Your task to perform on an android device: Open the calendar and show me this week's events? Image 0: 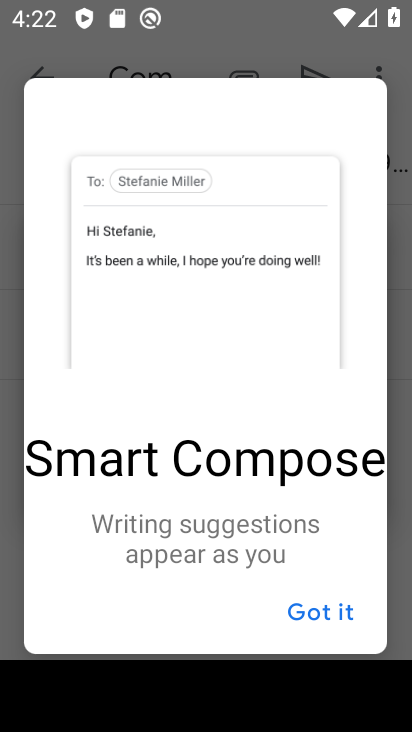
Step 0: press home button
Your task to perform on an android device: Open the calendar and show me this week's events? Image 1: 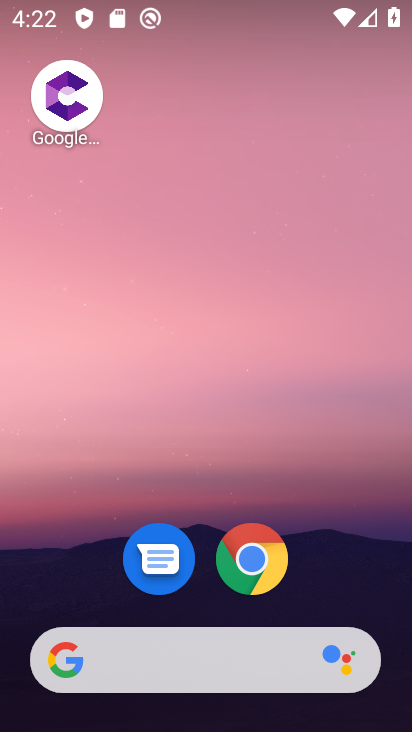
Step 1: drag from (370, 581) to (274, 101)
Your task to perform on an android device: Open the calendar and show me this week's events? Image 2: 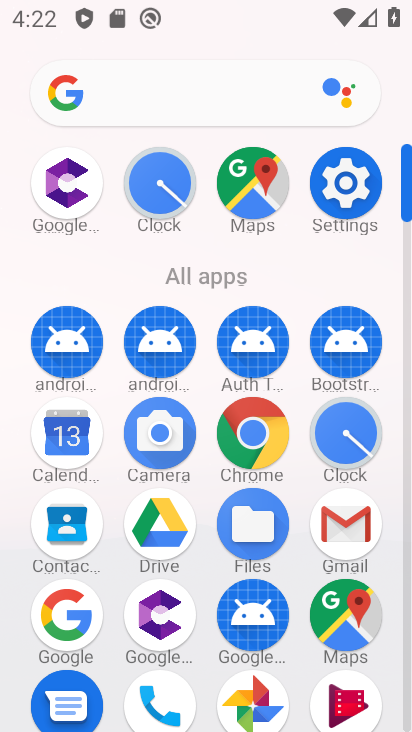
Step 2: click (80, 442)
Your task to perform on an android device: Open the calendar and show me this week's events? Image 3: 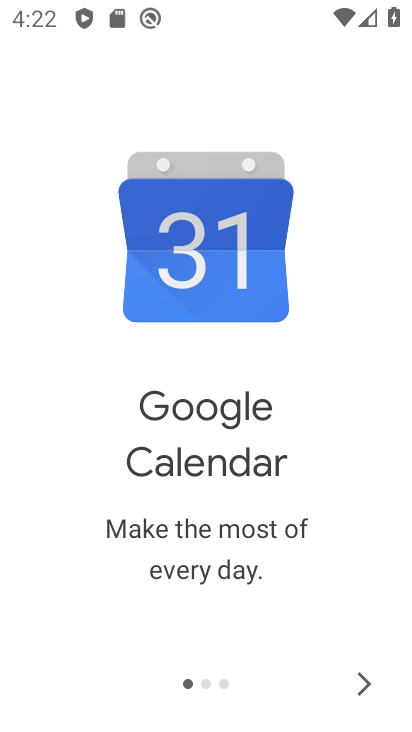
Step 3: click (350, 681)
Your task to perform on an android device: Open the calendar and show me this week's events? Image 4: 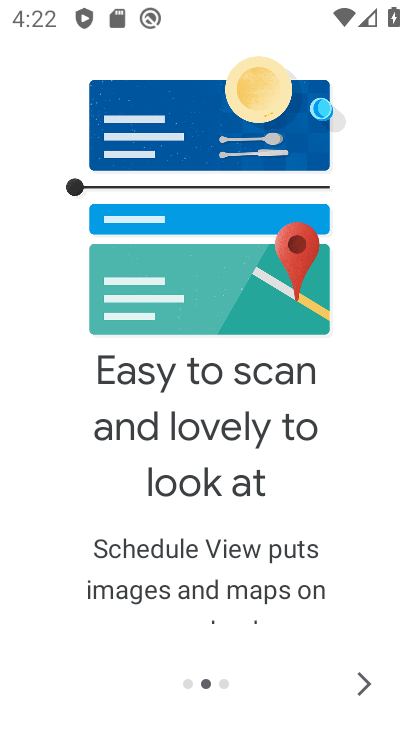
Step 4: click (357, 685)
Your task to perform on an android device: Open the calendar and show me this week's events? Image 5: 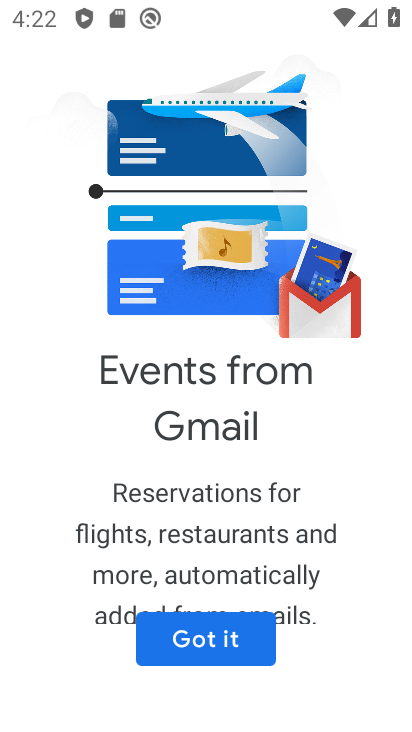
Step 5: click (253, 646)
Your task to perform on an android device: Open the calendar and show me this week's events? Image 6: 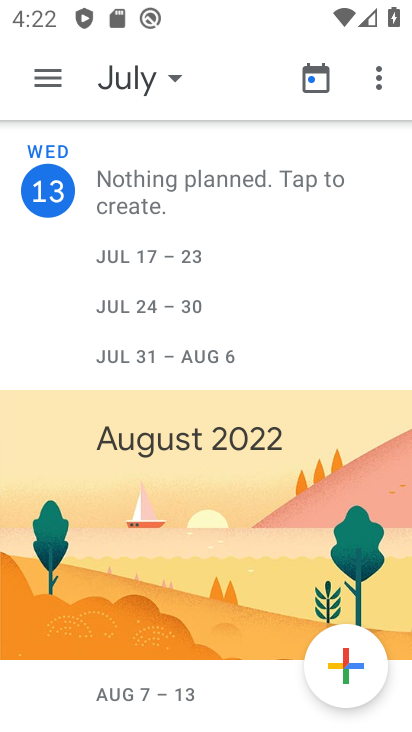
Step 6: click (51, 74)
Your task to perform on an android device: Open the calendar and show me this week's events? Image 7: 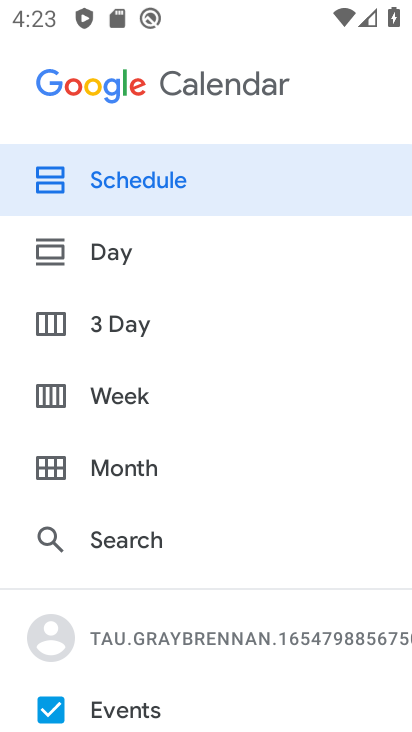
Step 7: drag from (191, 639) to (136, 230)
Your task to perform on an android device: Open the calendar and show me this week's events? Image 8: 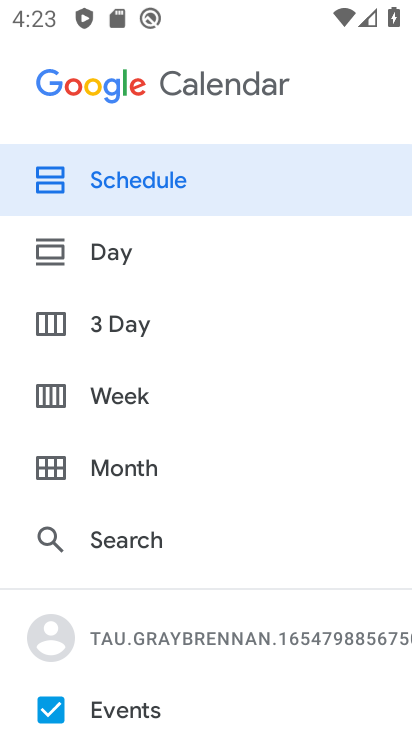
Step 8: drag from (252, 626) to (216, 263)
Your task to perform on an android device: Open the calendar and show me this week's events? Image 9: 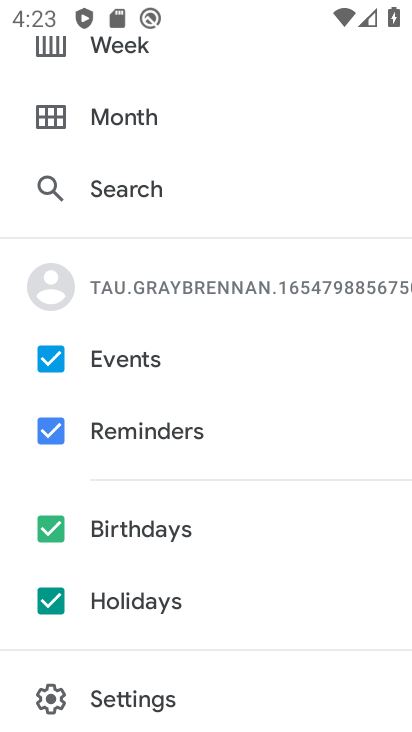
Step 9: click (49, 609)
Your task to perform on an android device: Open the calendar and show me this week's events? Image 10: 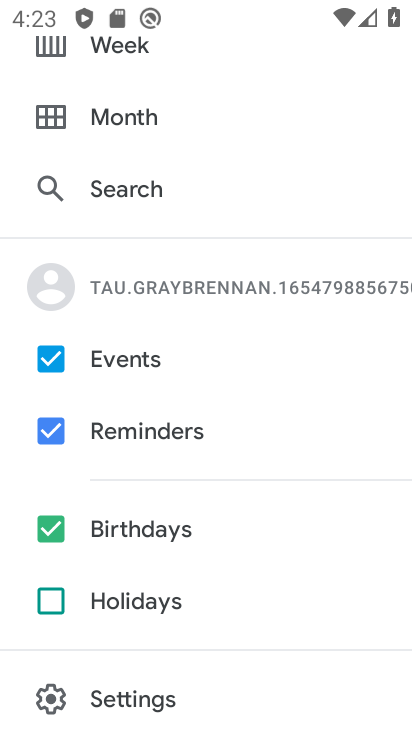
Step 10: click (50, 528)
Your task to perform on an android device: Open the calendar and show me this week's events? Image 11: 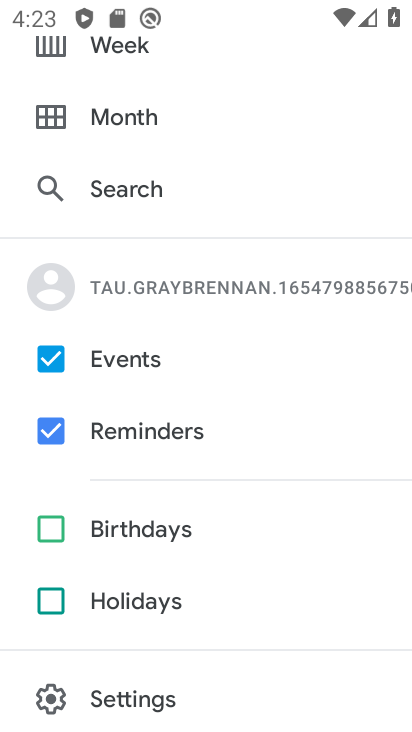
Step 11: click (48, 436)
Your task to perform on an android device: Open the calendar and show me this week's events? Image 12: 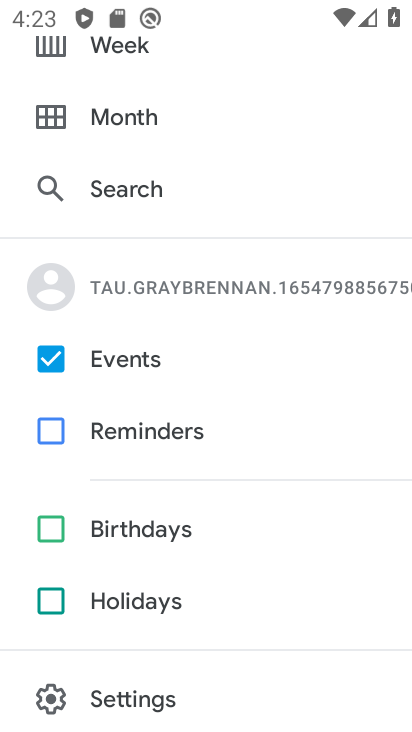
Step 12: click (108, 47)
Your task to perform on an android device: Open the calendar and show me this week's events? Image 13: 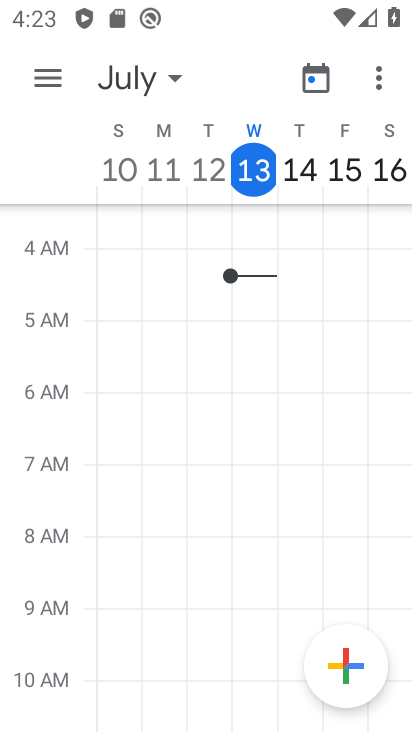
Step 13: task complete